Your task to perform on an android device: check data usage Image 0: 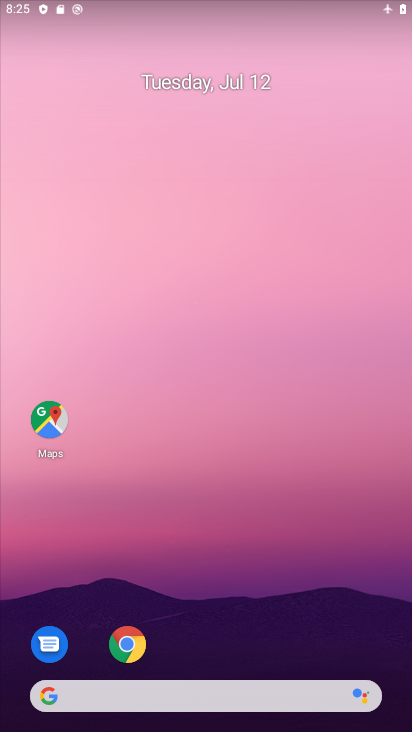
Step 0: drag from (206, 648) to (173, 175)
Your task to perform on an android device: check data usage Image 1: 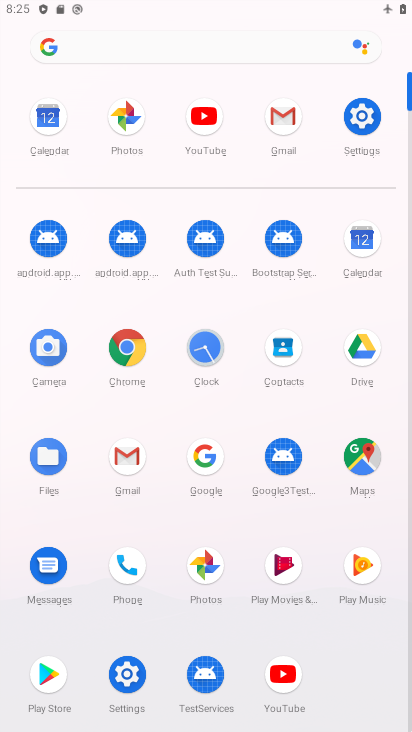
Step 1: click (361, 115)
Your task to perform on an android device: check data usage Image 2: 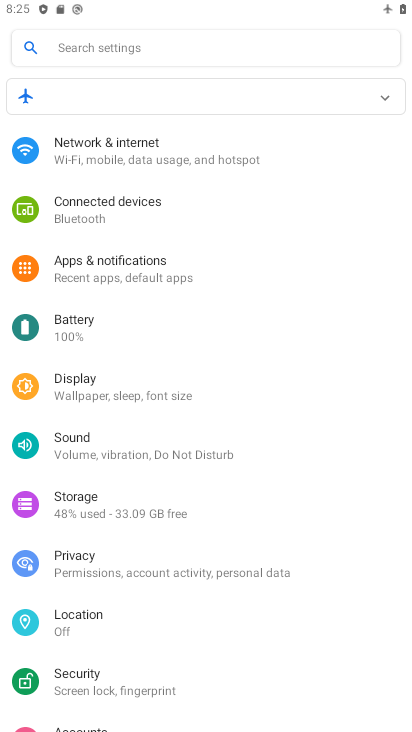
Step 2: click (150, 158)
Your task to perform on an android device: check data usage Image 3: 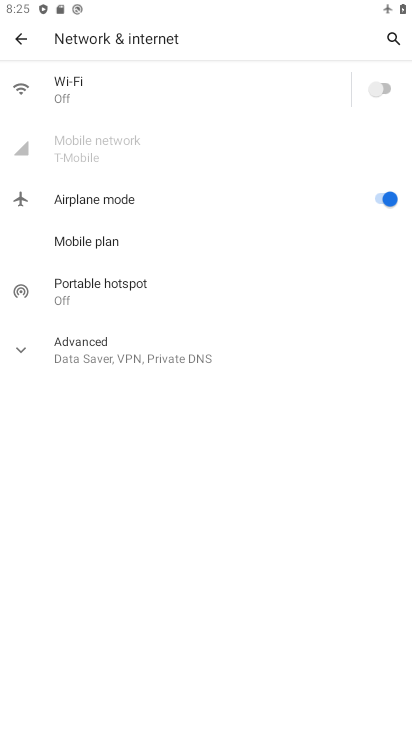
Step 3: task complete